Your task to perform on an android device: make emails show in primary in the gmail app Image 0: 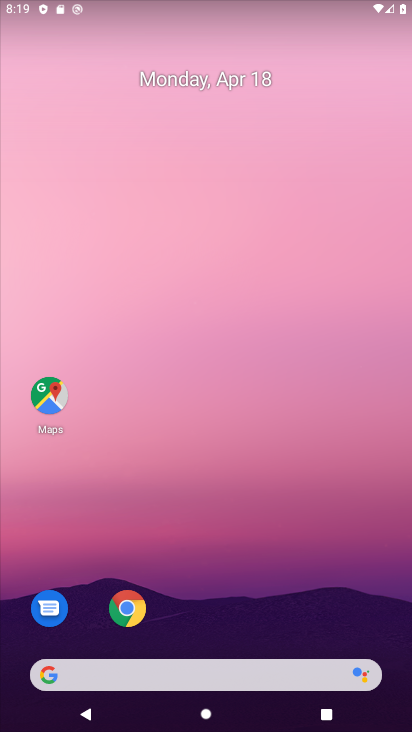
Step 0: drag from (198, 467) to (174, 56)
Your task to perform on an android device: make emails show in primary in the gmail app Image 1: 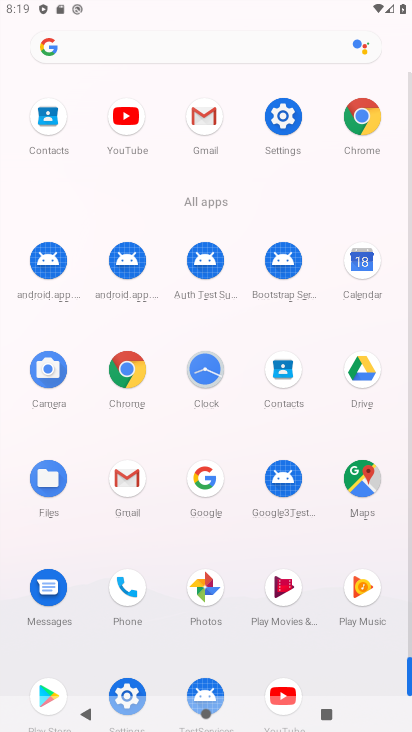
Step 1: click (204, 117)
Your task to perform on an android device: make emails show in primary in the gmail app Image 2: 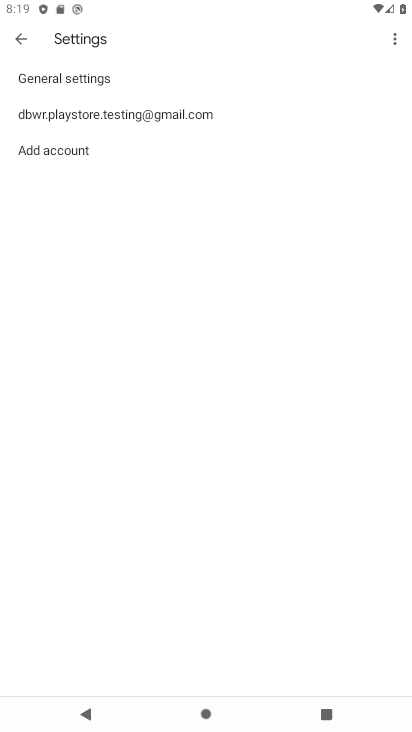
Step 2: click (204, 117)
Your task to perform on an android device: make emails show in primary in the gmail app Image 3: 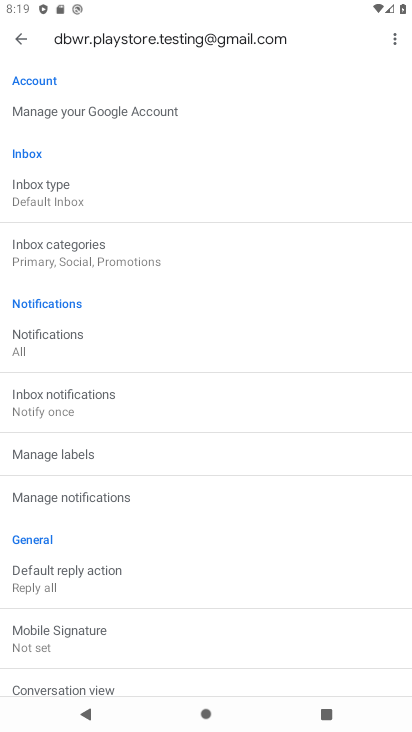
Step 3: click (57, 248)
Your task to perform on an android device: make emails show in primary in the gmail app Image 4: 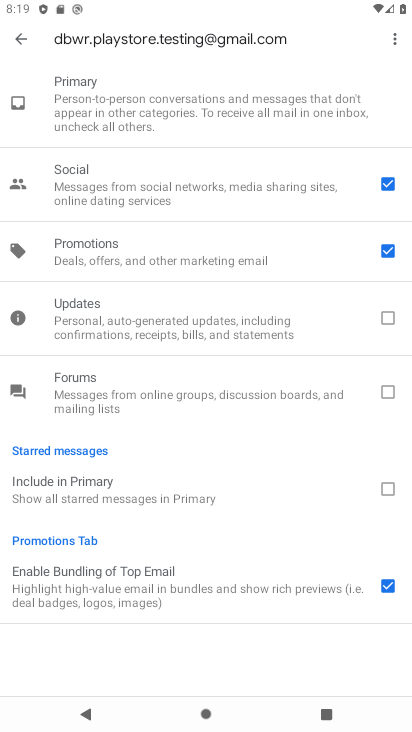
Step 4: click (385, 188)
Your task to perform on an android device: make emails show in primary in the gmail app Image 5: 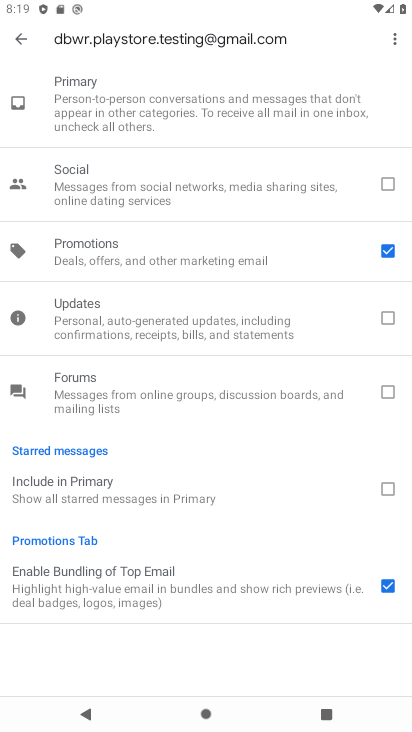
Step 5: click (389, 240)
Your task to perform on an android device: make emails show in primary in the gmail app Image 6: 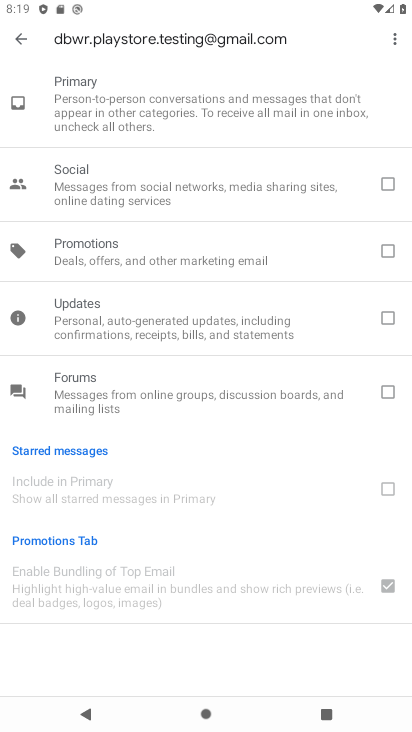
Step 6: click (17, 35)
Your task to perform on an android device: make emails show in primary in the gmail app Image 7: 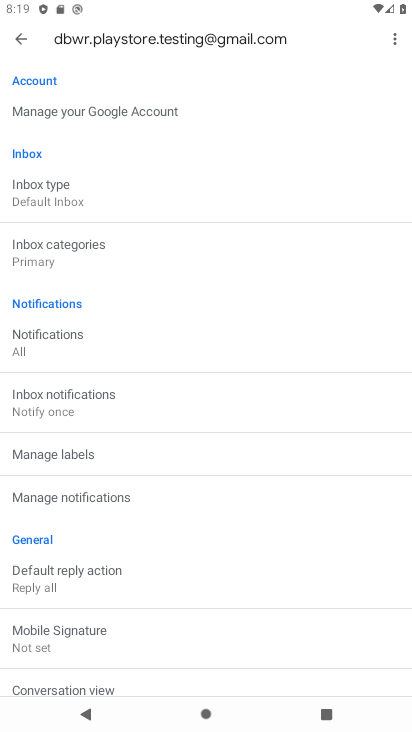
Step 7: task complete